Your task to perform on an android device: make emails show in primary in the gmail app Image 0: 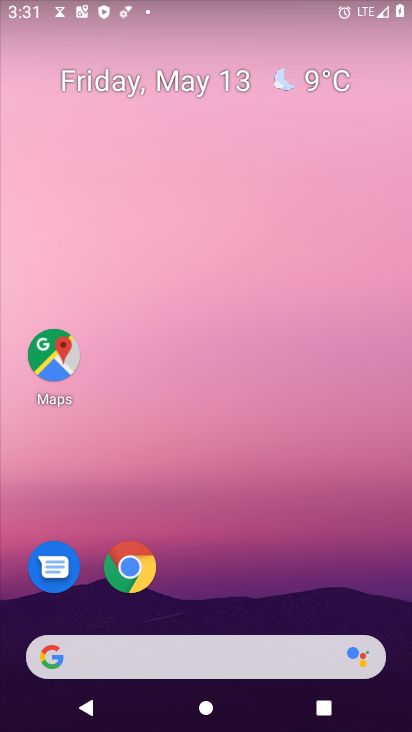
Step 0: drag from (291, 609) to (277, 6)
Your task to perform on an android device: make emails show in primary in the gmail app Image 1: 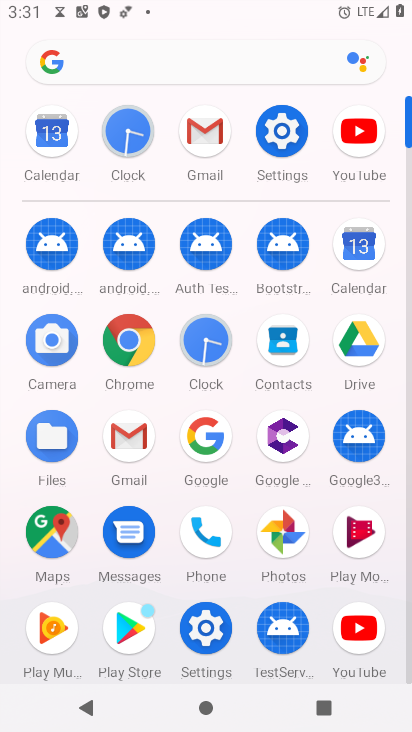
Step 1: click (207, 138)
Your task to perform on an android device: make emails show in primary in the gmail app Image 2: 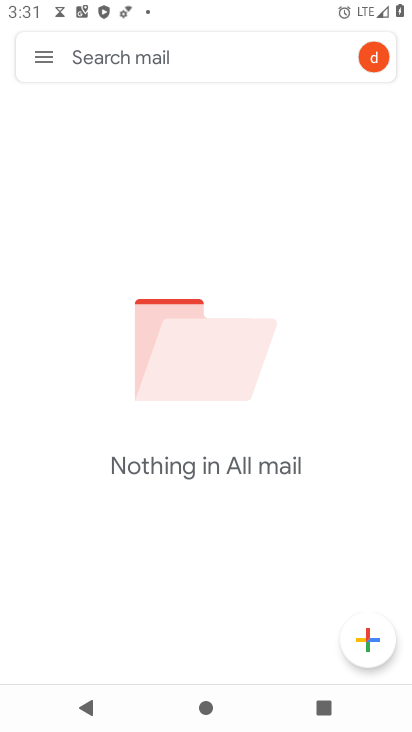
Step 2: click (46, 62)
Your task to perform on an android device: make emails show in primary in the gmail app Image 3: 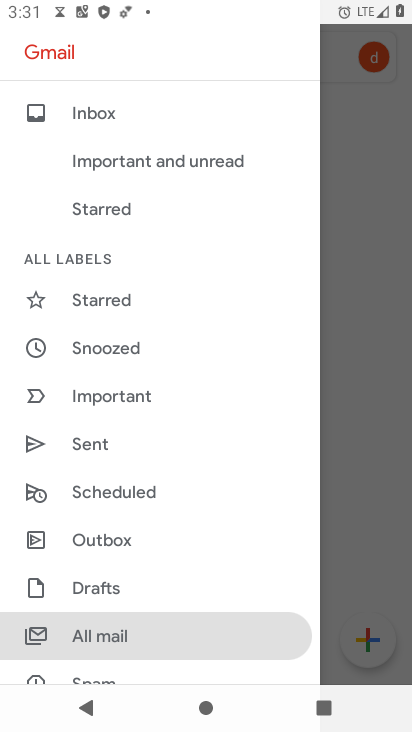
Step 3: drag from (179, 537) to (185, 87)
Your task to perform on an android device: make emails show in primary in the gmail app Image 4: 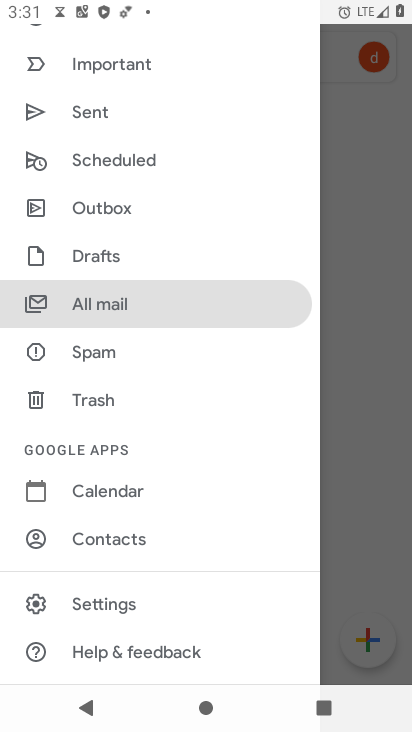
Step 4: click (88, 601)
Your task to perform on an android device: make emails show in primary in the gmail app Image 5: 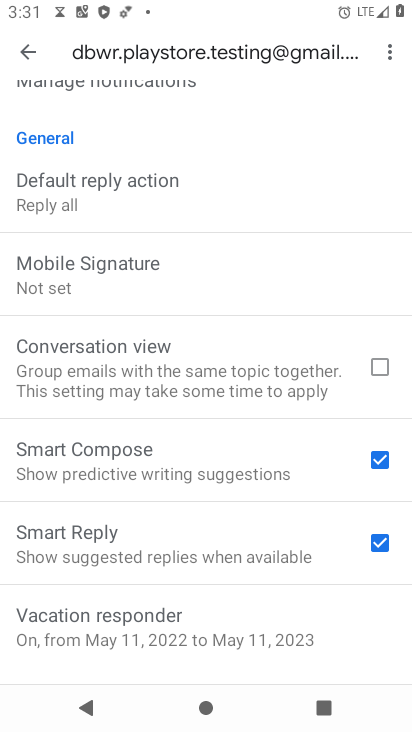
Step 5: drag from (250, 276) to (233, 633)
Your task to perform on an android device: make emails show in primary in the gmail app Image 6: 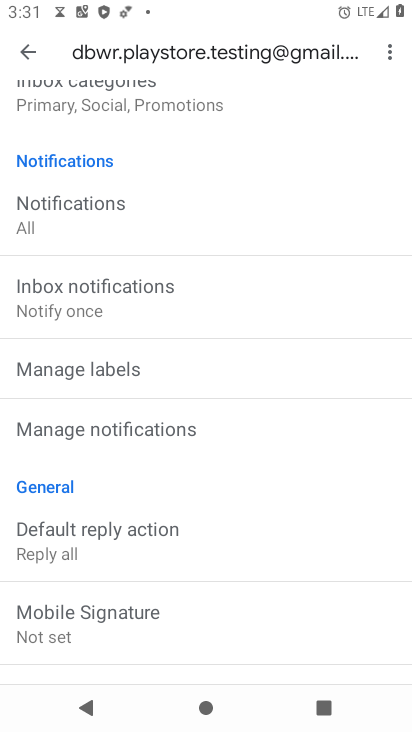
Step 6: drag from (257, 286) to (239, 462)
Your task to perform on an android device: make emails show in primary in the gmail app Image 7: 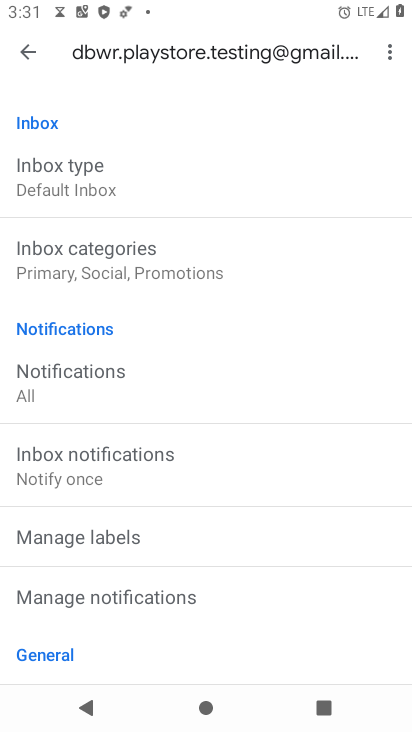
Step 7: click (99, 265)
Your task to perform on an android device: make emails show in primary in the gmail app Image 8: 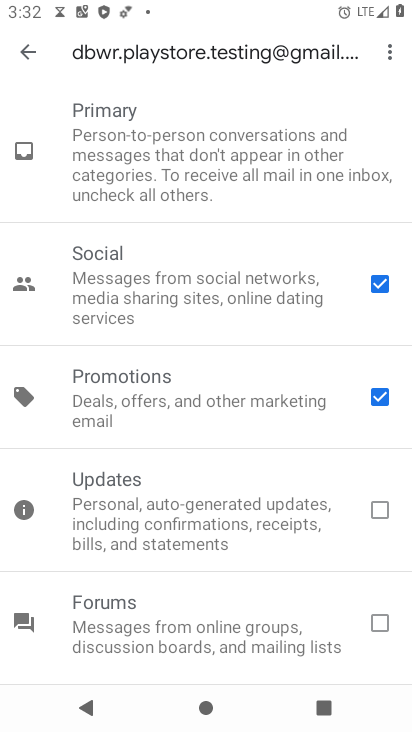
Step 8: click (367, 284)
Your task to perform on an android device: make emails show in primary in the gmail app Image 9: 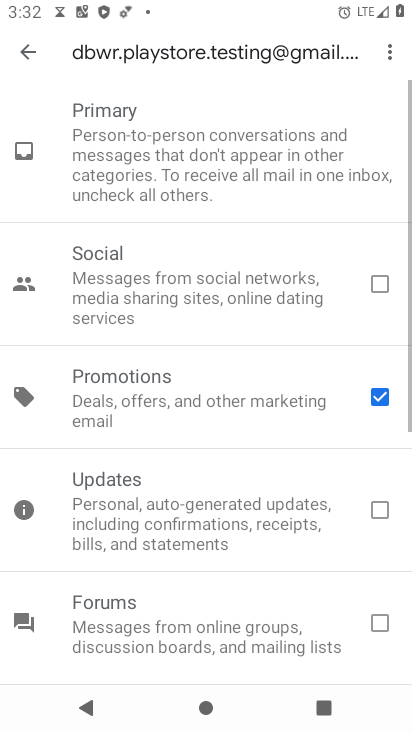
Step 9: click (381, 398)
Your task to perform on an android device: make emails show in primary in the gmail app Image 10: 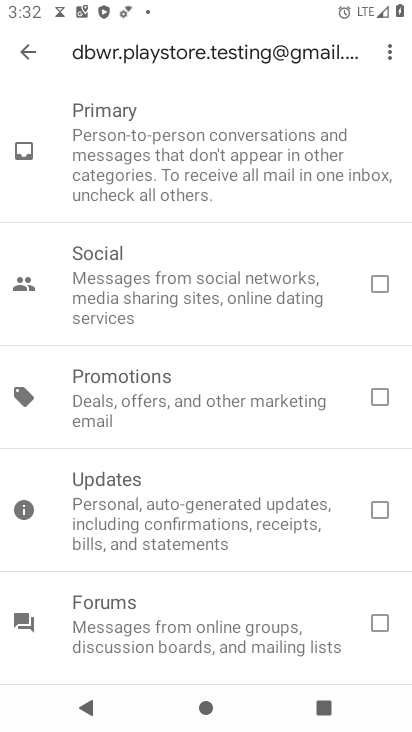
Step 10: click (31, 56)
Your task to perform on an android device: make emails show in primary in the gmail app Image 11: 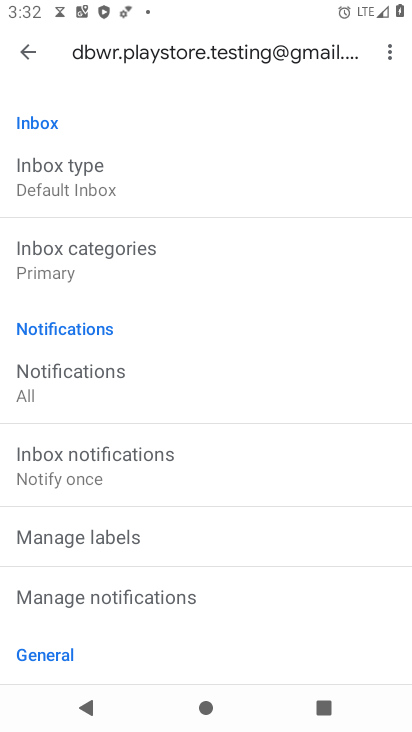
Step 11: task complete